Your task to perform on an android device: install app "Skype" Image 0: 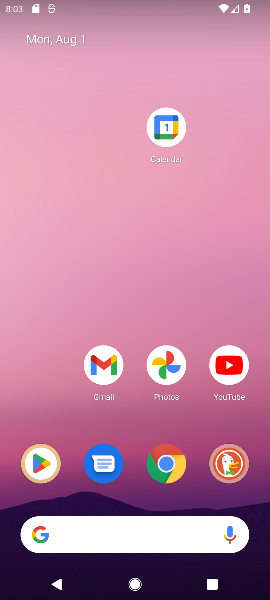
Step 0: click (47, 471)
Your task to perform on an android device: install app "Skype" Image 1: 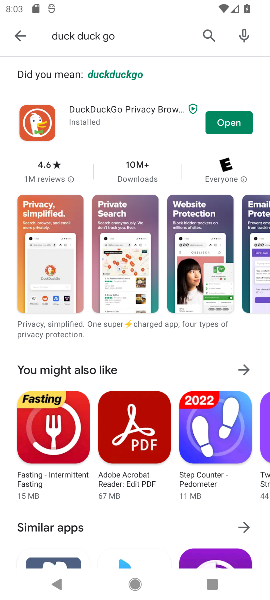
Step 1: click (205, 49)
Your task to perform on an android device: install app "Skype" Image 2: 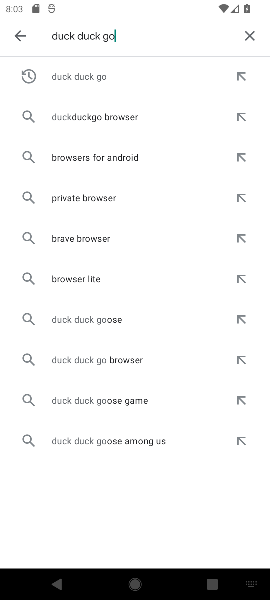
Step 2: click (243, 35)
Your task to perform on an android device: install app "Skype" Image 3: 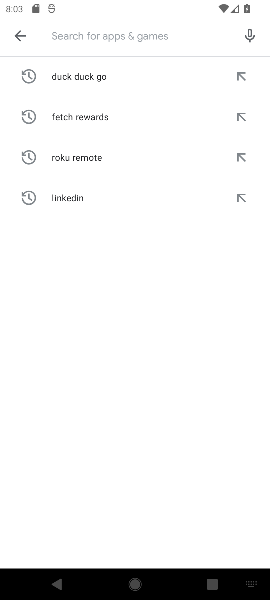
Step 3: type "skype"
Your task to perform on an android device: install app "Skype" Image 4: 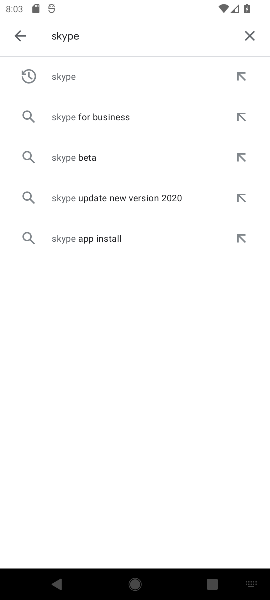
Step 4: click (153, 64)
Your task to perform on an android device: install app "Skype" Image 5: 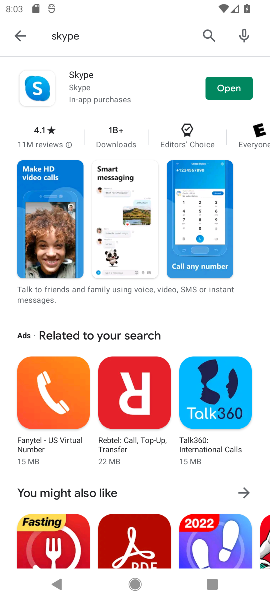
Step 5: click (231, 87)
Your task to perform on an android device: install app "Skype" Image 6: 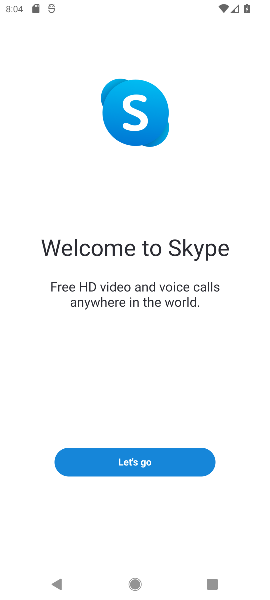
Step 6: task complete